Your task to perform on an android device: create a new album in the google photos Image 0: 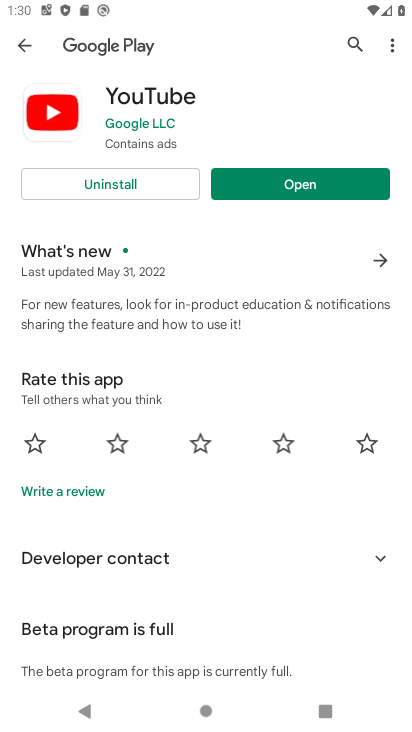
Step 0: press home button
Your task to perform on an android device: create a new album in the google photos Image 1: 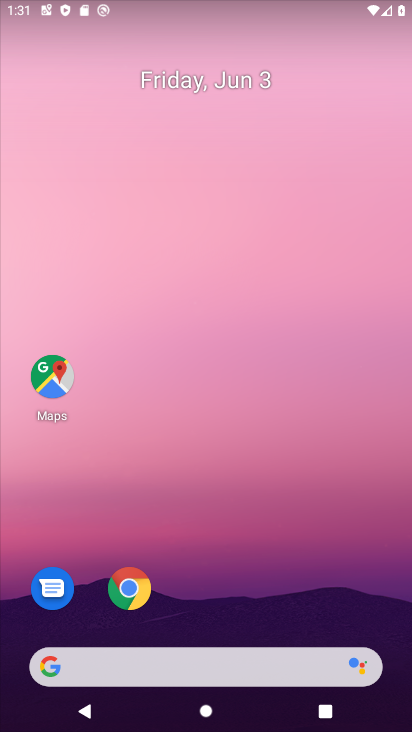
Step 1: drag from (14, 615) to (241, 210)
Your task to perform on an android device: create a new album in the google photos Image 2: 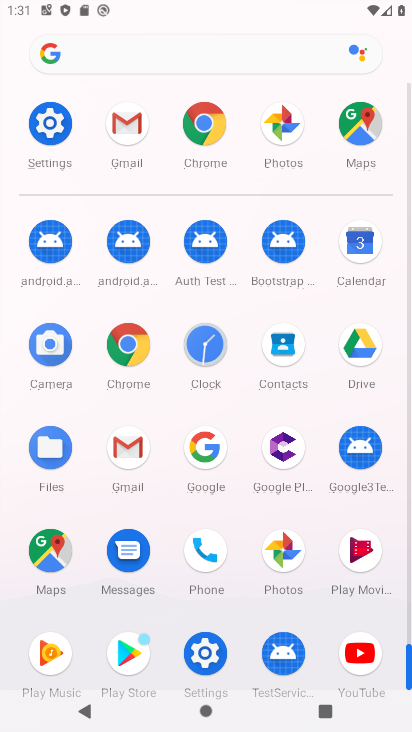
Step 2: click (278, 117)
Your task to perform on an android device: create a new album in the google photos Image 3: 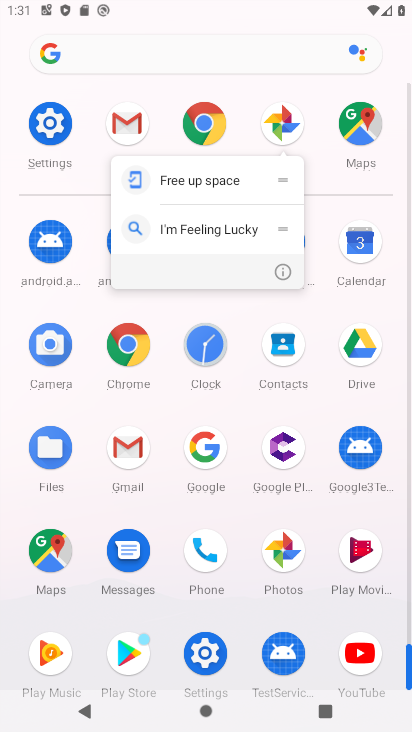
Step 3: click (257, 123)
Your task to perform on an android device: create a new album in the google photos Image 4: 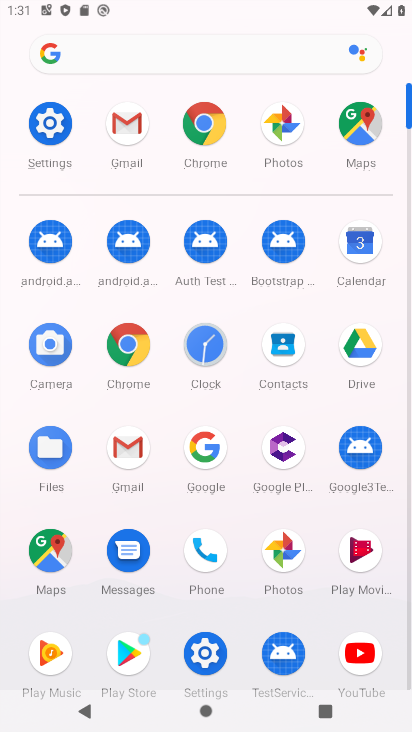
Step 4: click (273, 139)
Your task to perform on an android device: create a new album in the google photos Image 5: 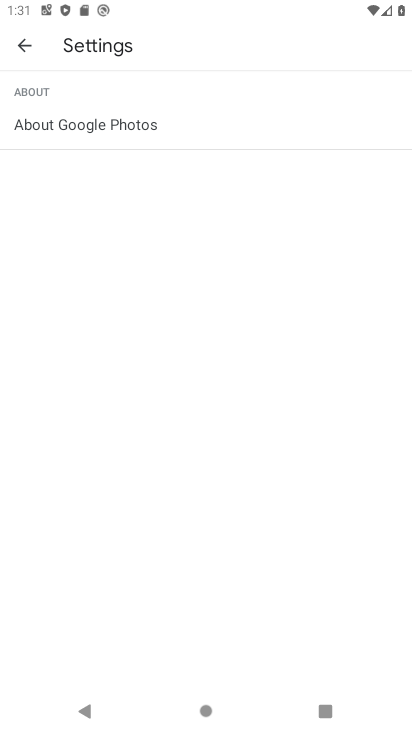
Step 5: click (29, 41)
Your task to perform on an android device: create a new album in the google photos Image 6: 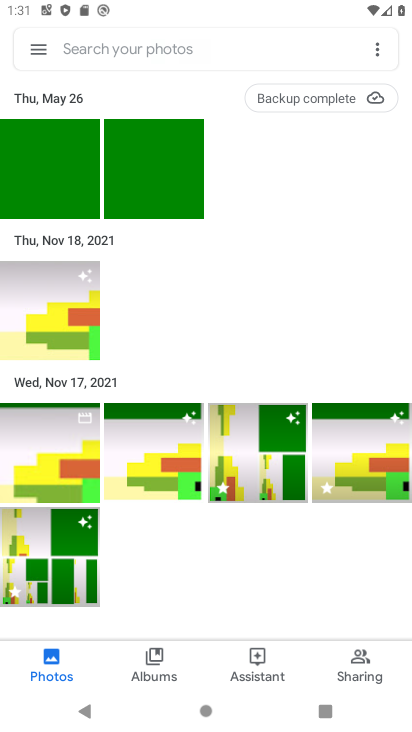
Step 6: click (382, 51)
Your task to perform on an android device: create a new album in the google photos Image 7: 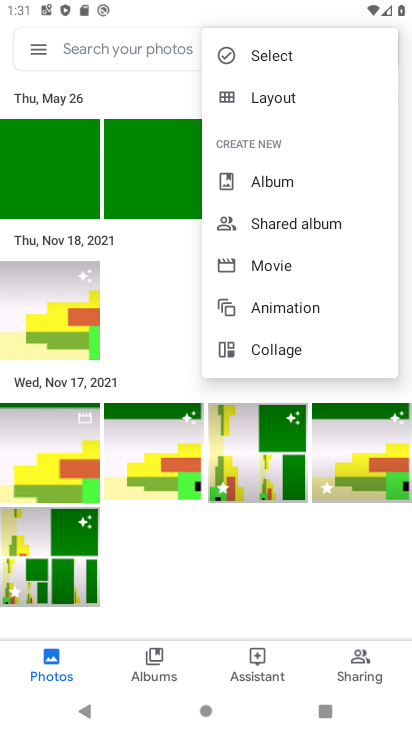
Step 7: click (240, 189)
Your task to perform on an android device: create a new album in the google photos Image 8: 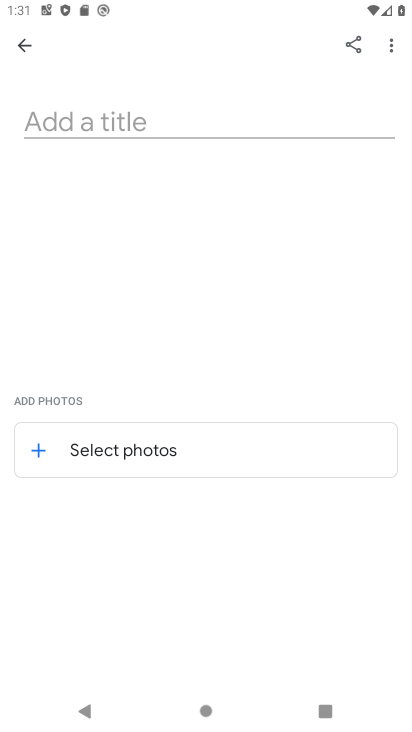
Step 8: click (246, 119)
Your task to perform on an android device: create a new album in the google photos Image 9: 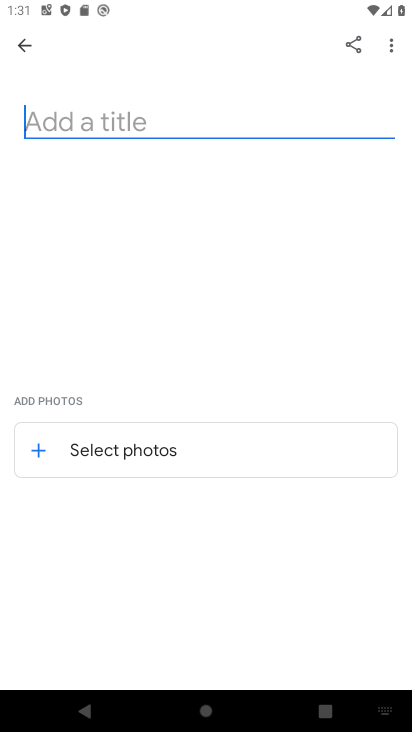
Step 9: type "hjiobihuujbhlbhiu"
Your task to perform on an android device: create a new album in the google photos Image 10: 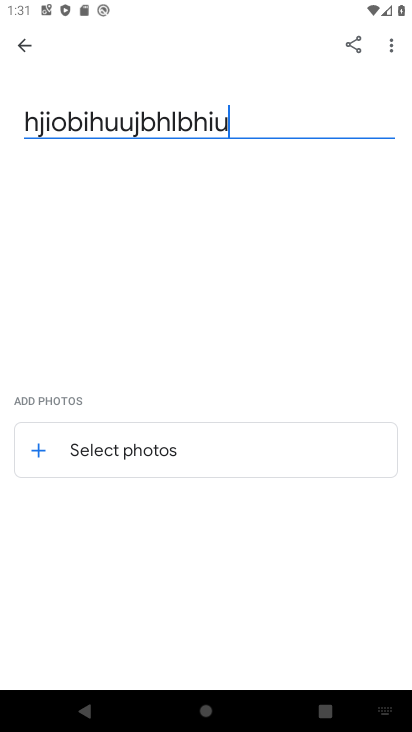
Step 10: type ""
Your task to perform on an android device: create a new album in the google photos Image 11: 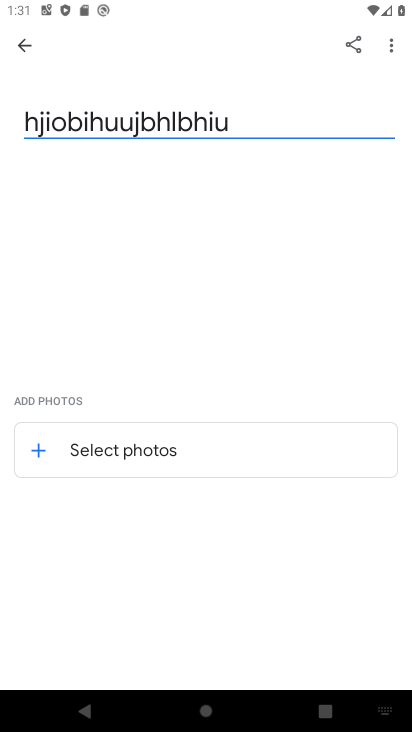
Step 11: click (223, 447)
Your task to perform on an android device: create a new album in the google photos Image 12: 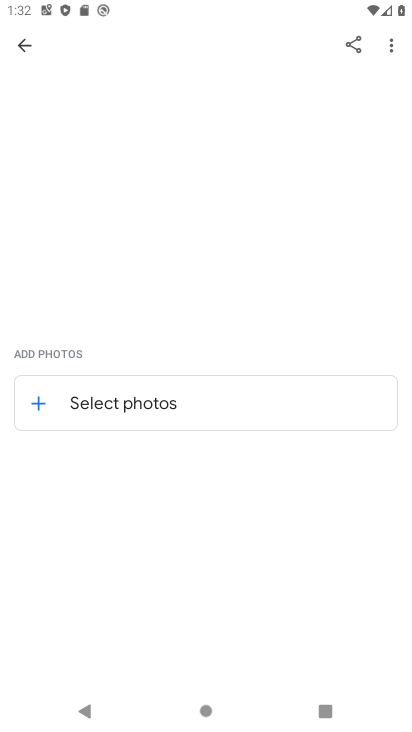
Step 12: click (166, 379)
Your task to perform on an android device: create a new album in the google photos Image 13: 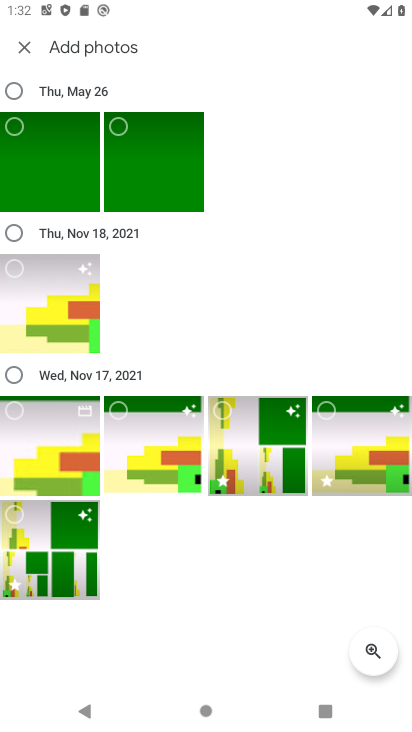
Step 13: click (194, 464)
Your task to perform on an android device: create a new album in the google photos Image 14: 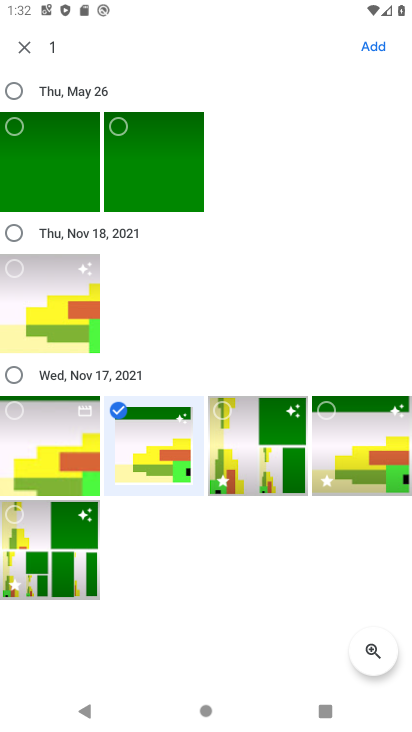
Step 14: click (389, 44)
Your task to perform on an android device: create a new album in the google photos Image 15: 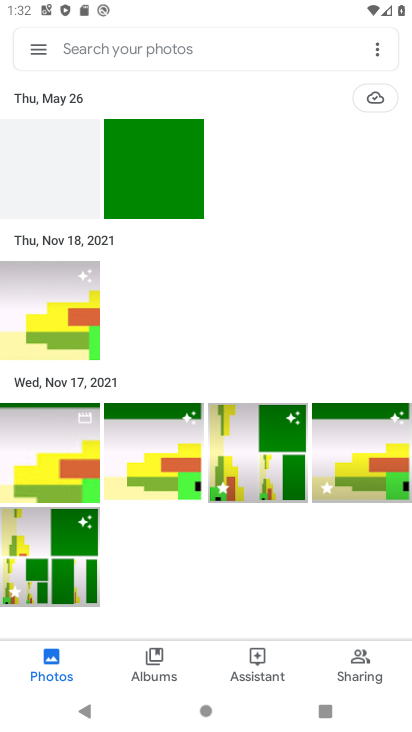
Step 15: task complete